Your task to perform on an android device: Go to display settings Image 0: 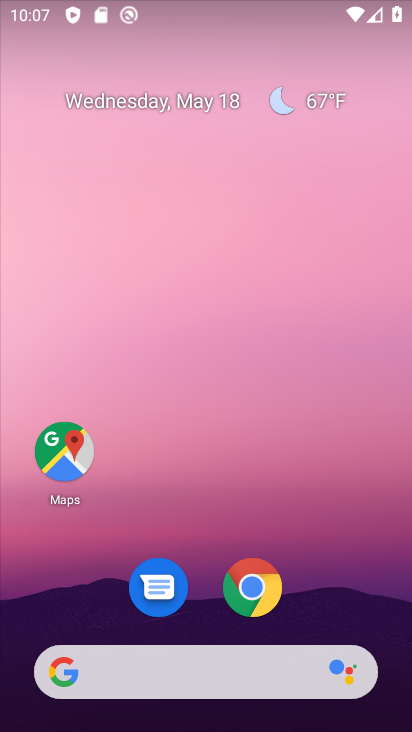
Step 0: drag from (342, 538) to (277, 183)
Your task to perform on an android device: Go to display settings Image 1: 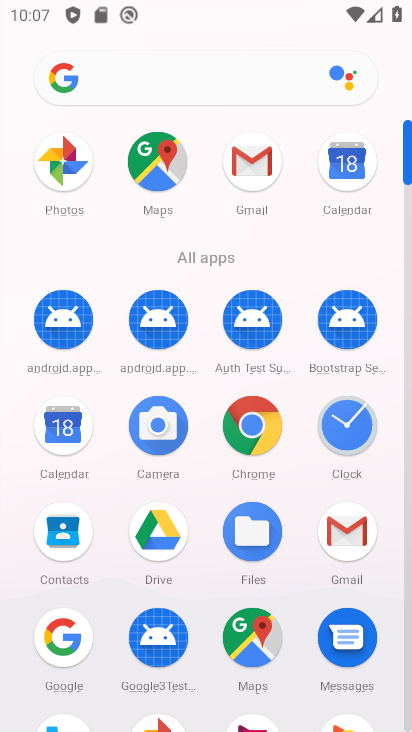
Step 1: drag from (278, 586) to (287, 219)
Your task to perform on an android device: Go to display settings Image 2: 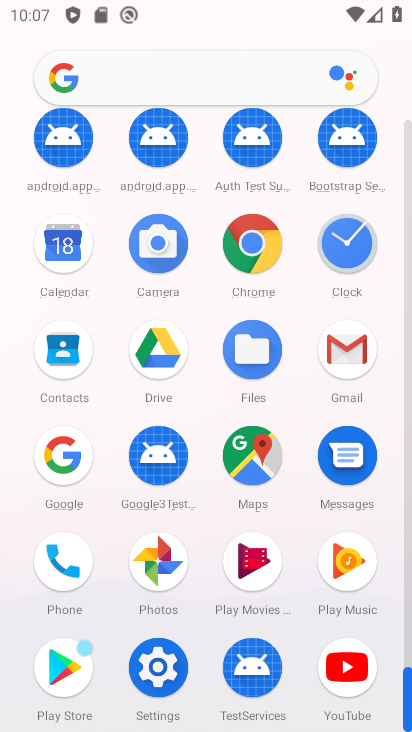
Step 2: click (149, 667)
Your task to perform on an android device: Go to display settings Image 3: 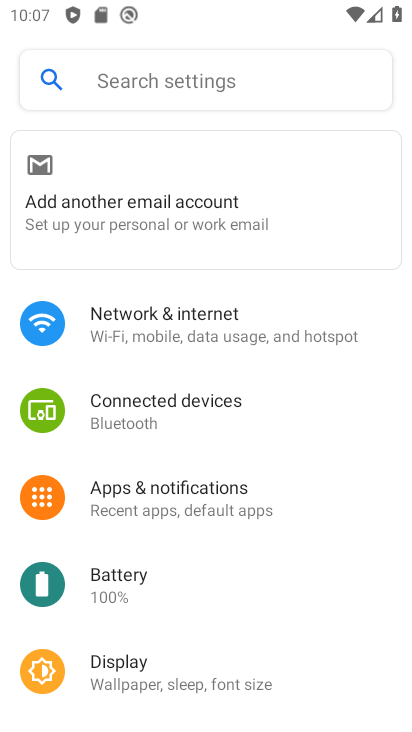
Step 3: click (150, 660)
Your task to perform on an android device: Go to display settings Image 4: 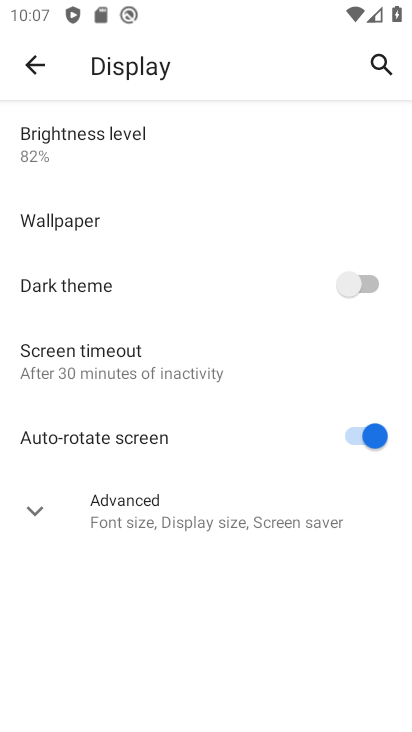
Step 4: task complete